Your task to perform on an android device: set default search engine in the chrome app Image 0: 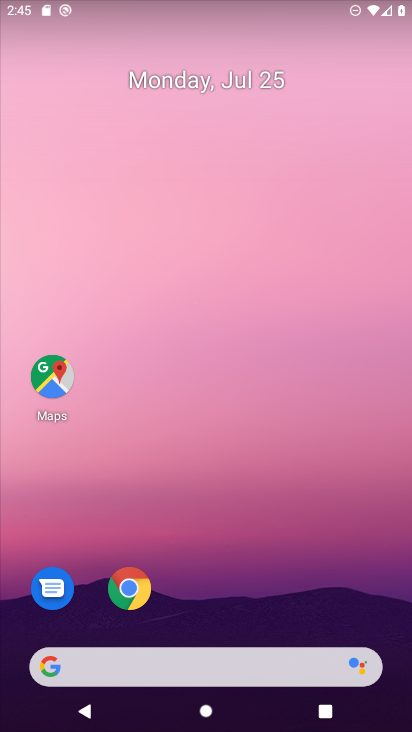
Step 0: drag from (209, 562) to (216, 212)
Your task to perform on an android device: set default search engine in the chrome app Image 1: 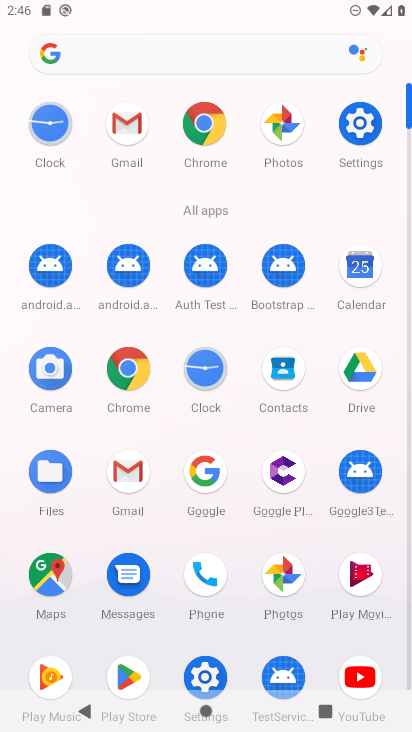
Step 1: click (215, 116)
Your task to perform on an android device: set default search engine in the chrome app Image 2: 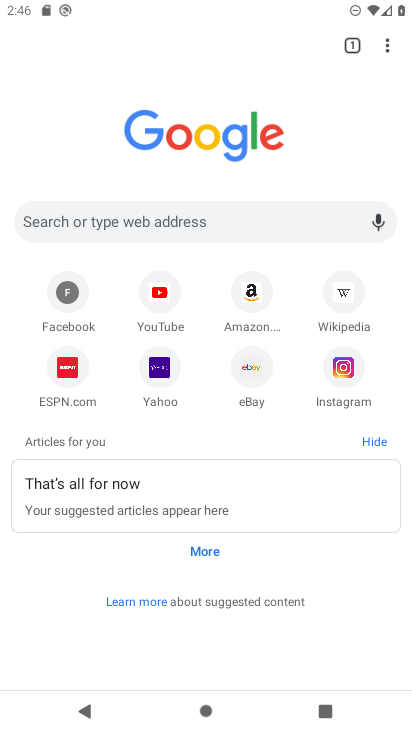
Step 2: click (385, 39)
Your task to perform on an android device: set default search engine in the chrome app Image 3: 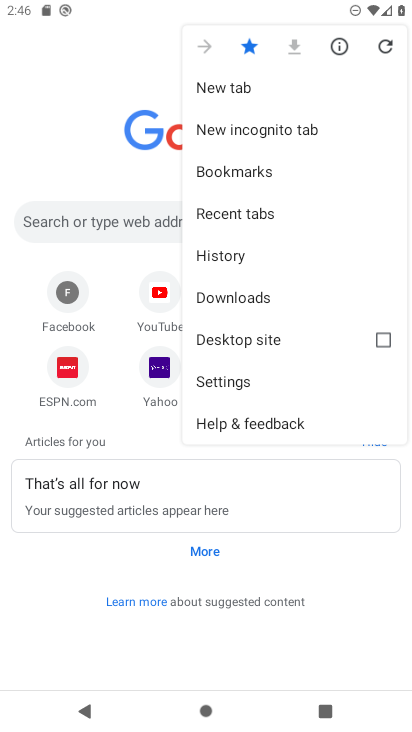
Step 3: click (261, 383)
Your task to perform on an android device: set default search engine in the chrome app Image 4: 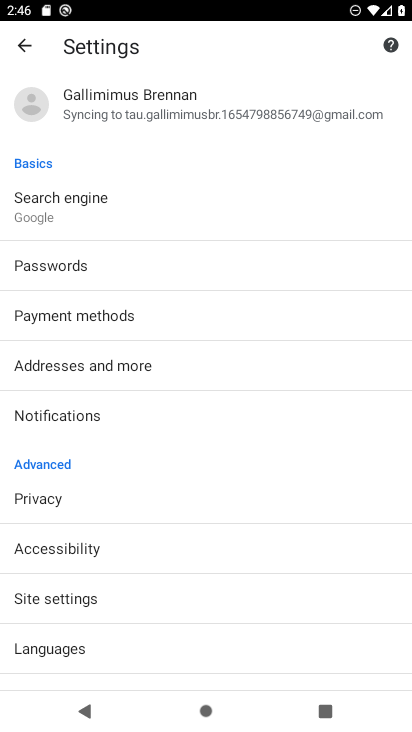
Step 4: click (84, 200)
Your task to perform on an android device: set default search engine in the chrome app Image 5: 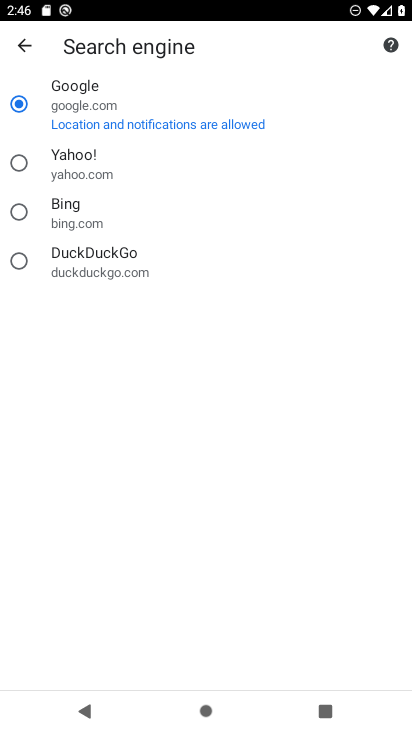
Step 5: click (63, 202)
Your task to perform on an android device: set default search engine in the chrome app Image 6: 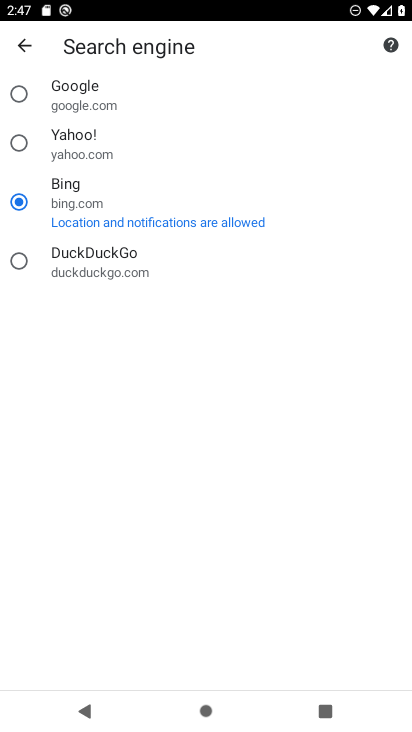
Step 6: task complete